Your task to perform on an android device: see sites visited before in the chrome app Image 0: 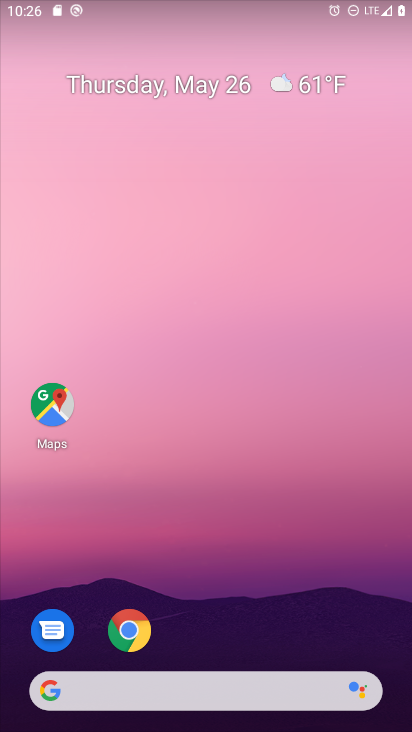
Step 0: click (144, 631)
Your task to perform on an android device: see sites visited before in the chrome app Image 1: 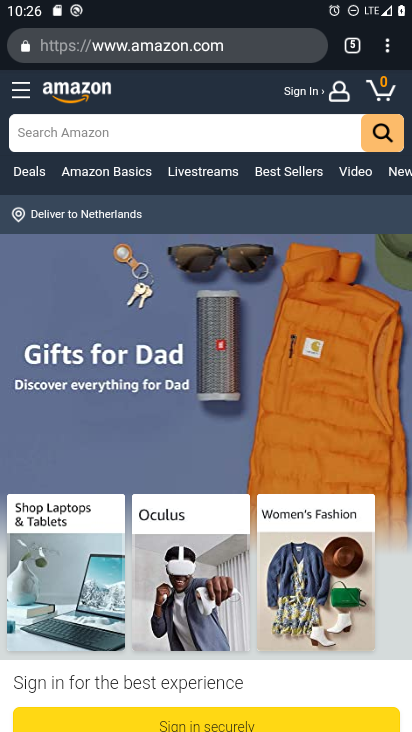
Step 1: click (364, 52)
Your task to perform on an android device: see sites visited before in the chrome app Image 2: 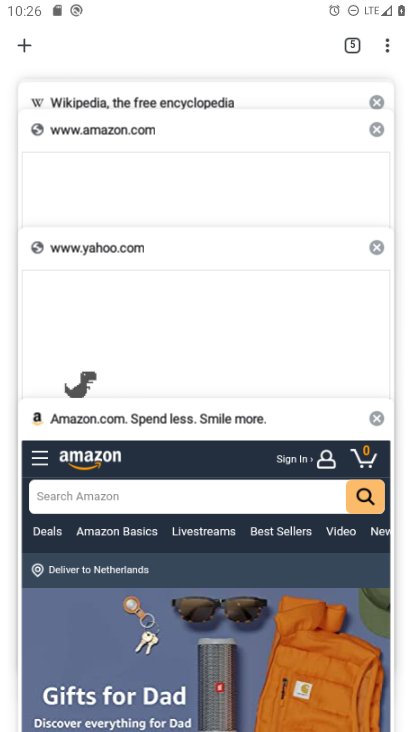
Step 2: task complete